Your task to perform on an android device: toggle data saver in the chrome app Image 0: 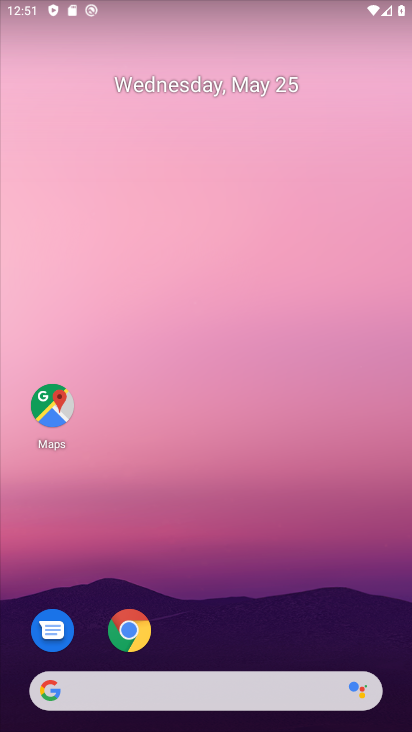
Step 0: click (123, 627)
Your task to perform on an android device: toggle data saver in the chrome app Image 1: 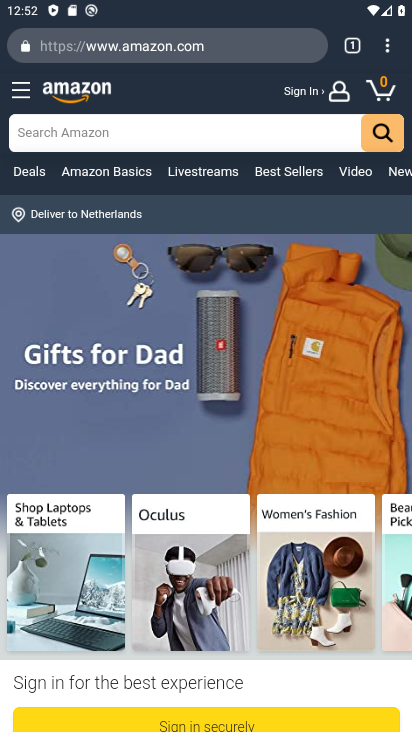
Step 1: click (392, 51)
Your task to perform on an android device: toggle data saver in the chrome app Image 2: 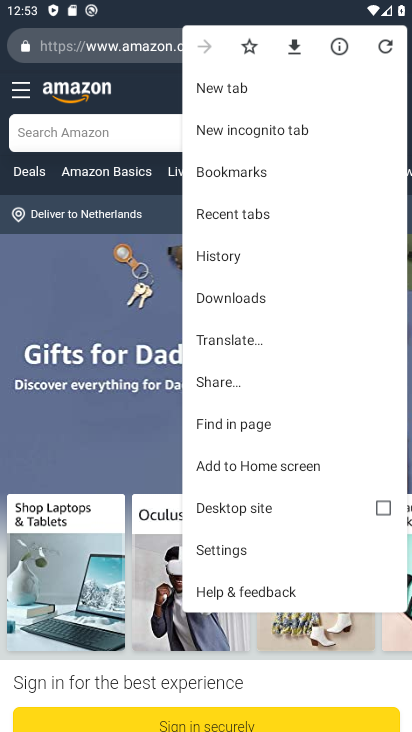
Step 2: click (265, 545)
Your task to perform on an android device: toggle data saver in the chrome app Image 3: 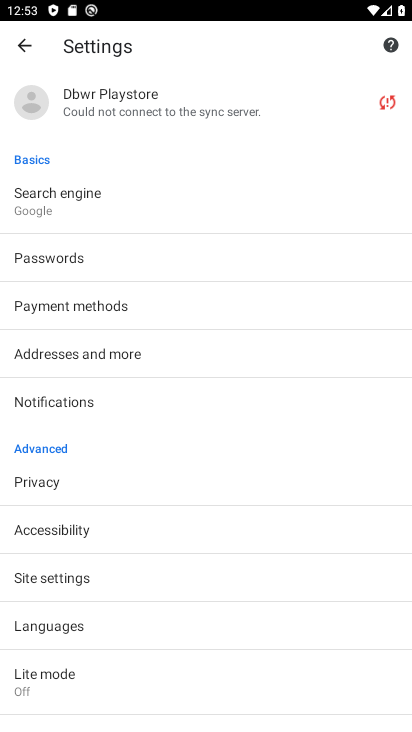
Step 3: click (95, 666)
Your task to perform on an android device: toggle data saver in the chrome app Image 4: 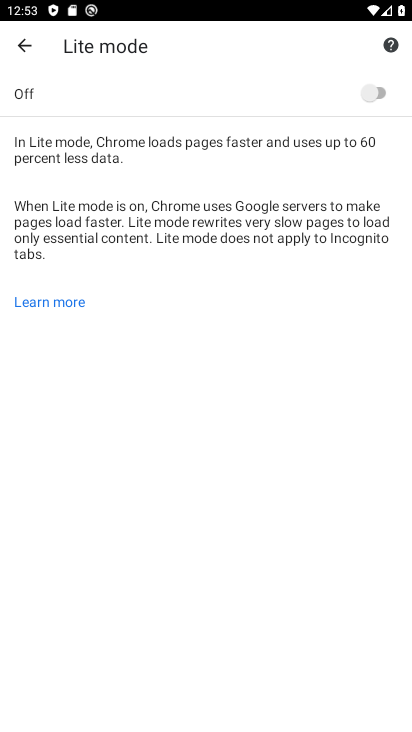
Step 4: click (378, 85)
Your task to perform on an android device: toggle data saver in the chrome app Image 5: 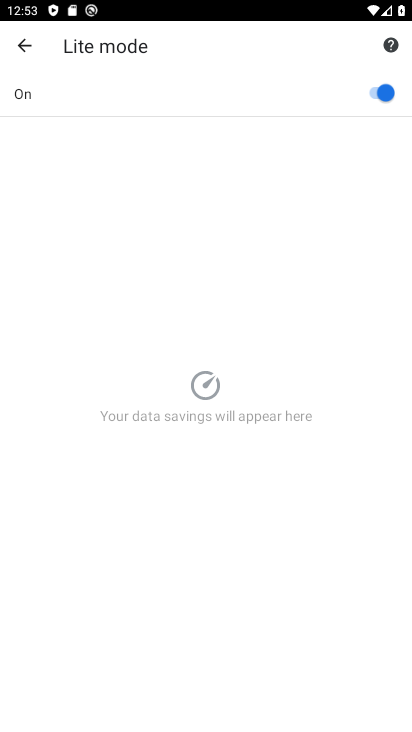
Step 5: task complete